Your task to perform on an android device: clear all cookies in the chrome app Image 0: 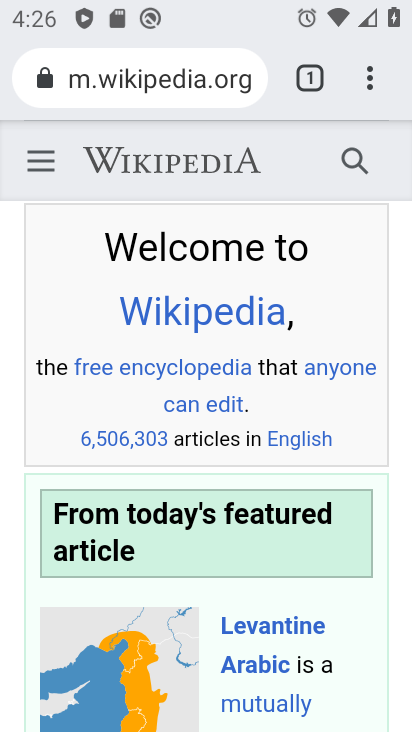
Step 0: press home button
Your task to perform on an android device: clear all cookies in the chrome app Image 1: 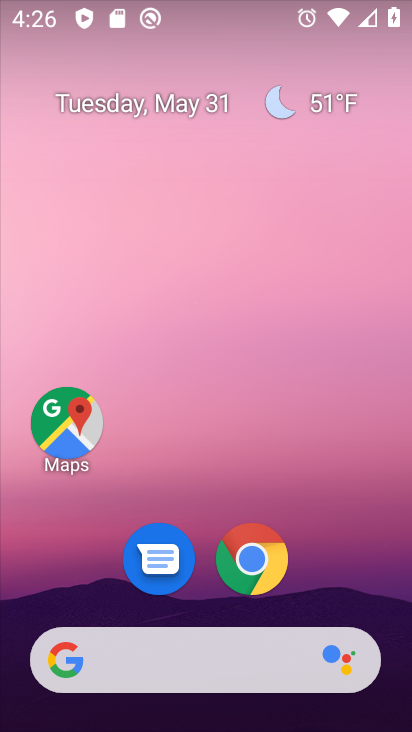
Step 1: click (262, 562)
Your task to perform on an android device: clear all cookies in the chrome app Image 2: 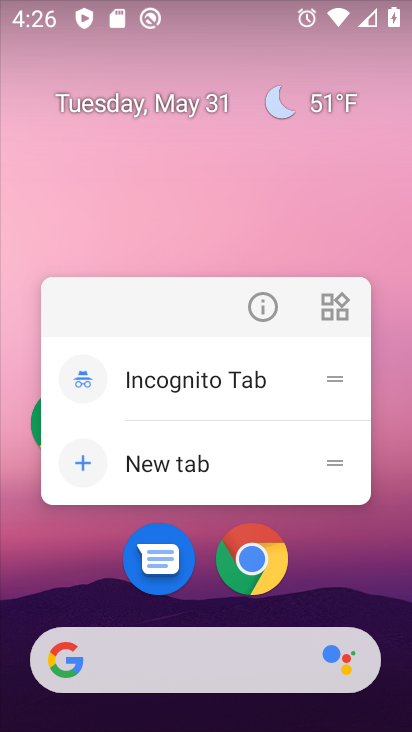
Step 2: click (252, 571)
Your task to perform on an android device: clear all cookies in the chrome app Image 3: 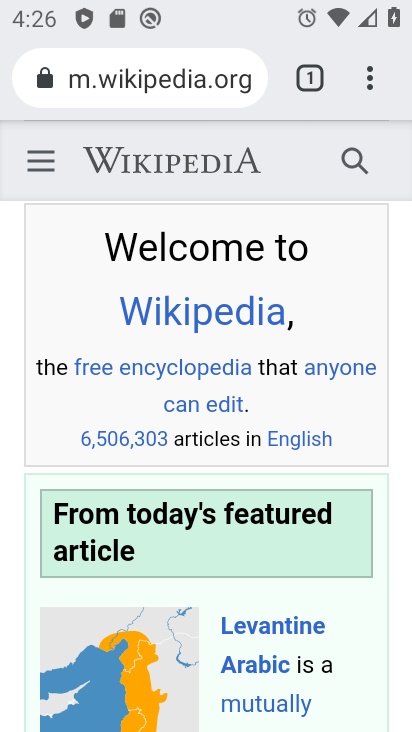
Step 3: click (366, 79)
Your task to perform on an android device: clear all cookies in the chrome app Image 4: 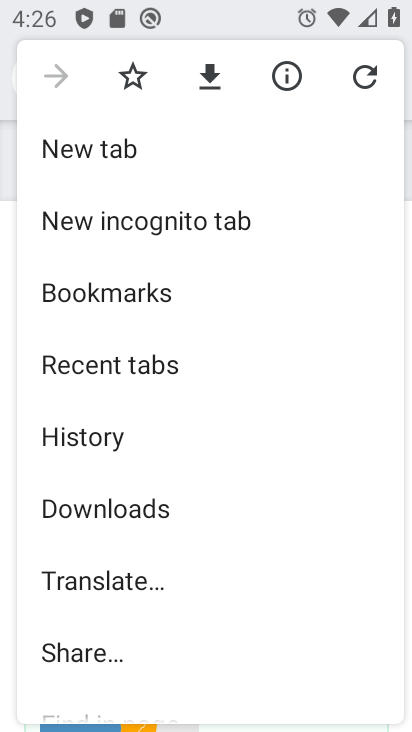
Step 4: click (85, 446)
Your task to perform on an android device: clear all cookies in the chrome app Image 5: 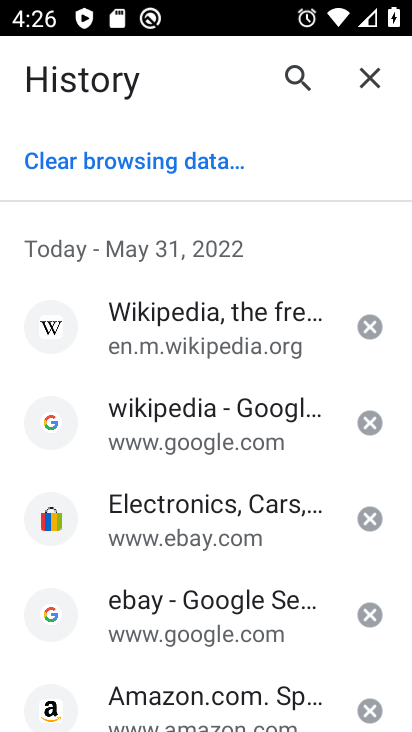
Step 5: click (160, 153)
Your task to perform on an android device: clear all cookies in the chrome app Image 6: 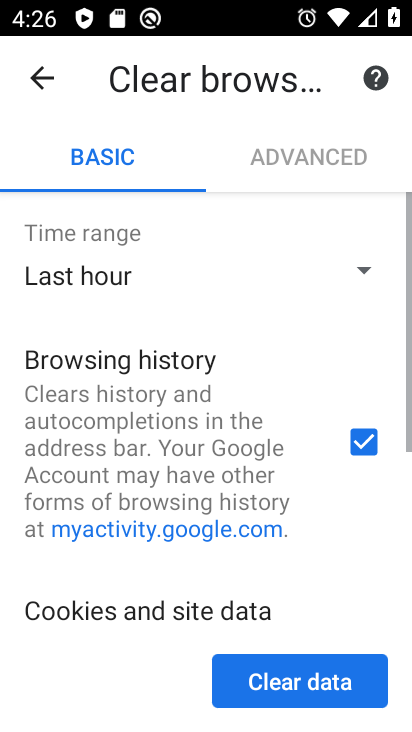
Step 6: drag from (324, 479) to (292, 182)
Your task to perform on an android device: clear all cookies in the chrome app Image 7: 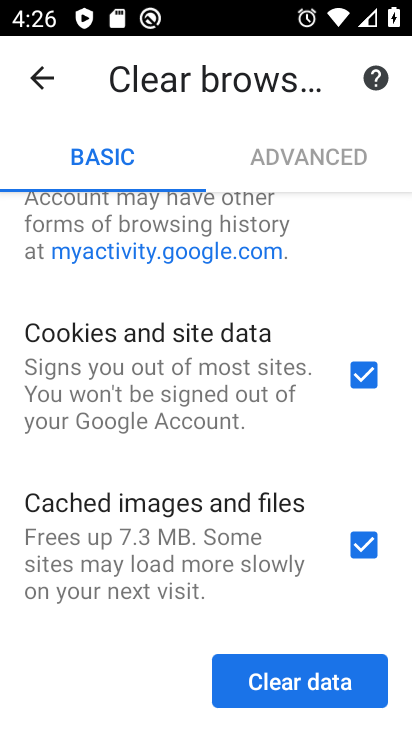
Step 7: click (247, 567)
Your task to perform on an android device: clear all cookies in the chrome app Image 8: 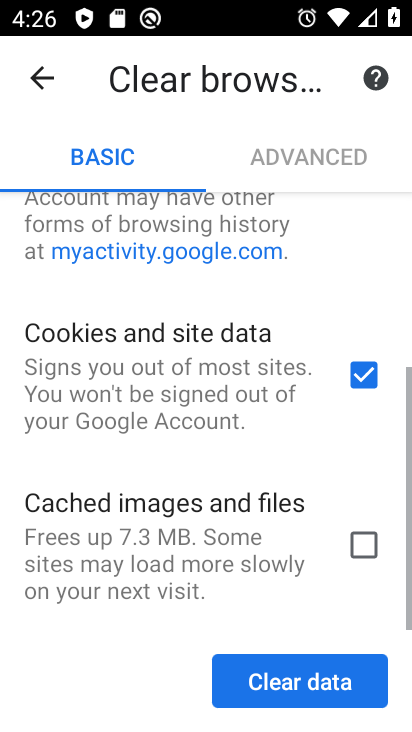
Step 8: drag from (260, 332) to (255, 619)
Your task to perform on an android device: clear all cookies in the chrome app Image 9: 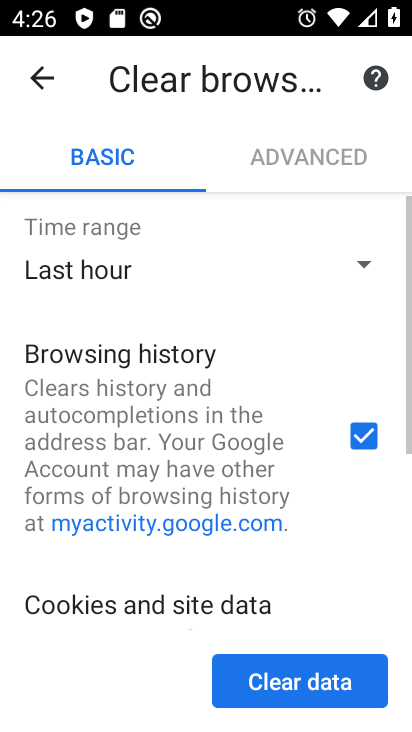
Step 9: click (290, 412)
Your task to perform on an android device: clear all cookies in the chrome app Image 10: 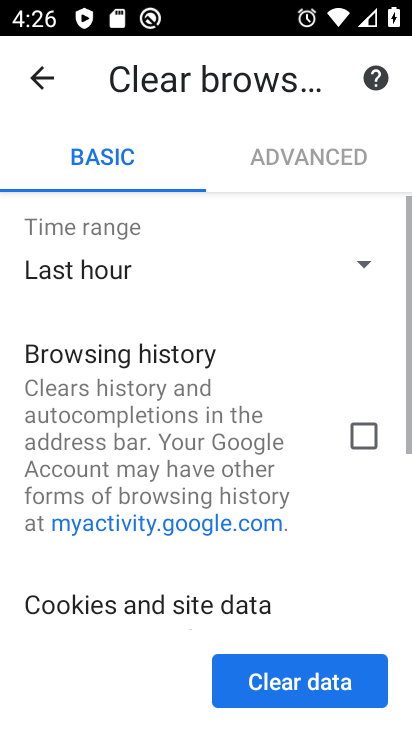
Step 10: click (310, 692)
Your task to perform on an android device: clear all cookies in the chrome app Image 11: 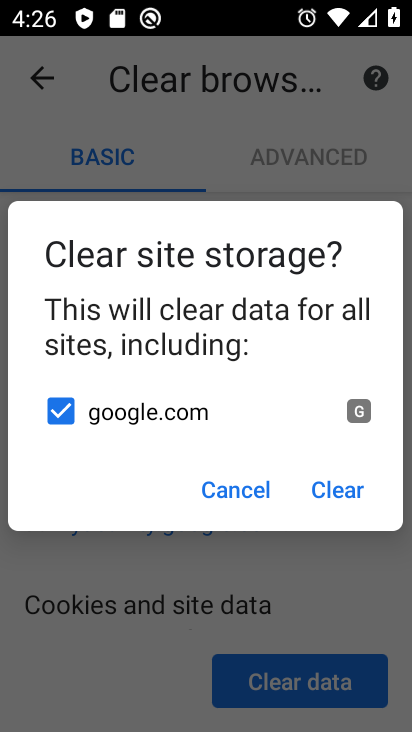
Step 11: click (336, 483)
Your task to perform on an android device: clear all cookies in the chrome app Image 12: 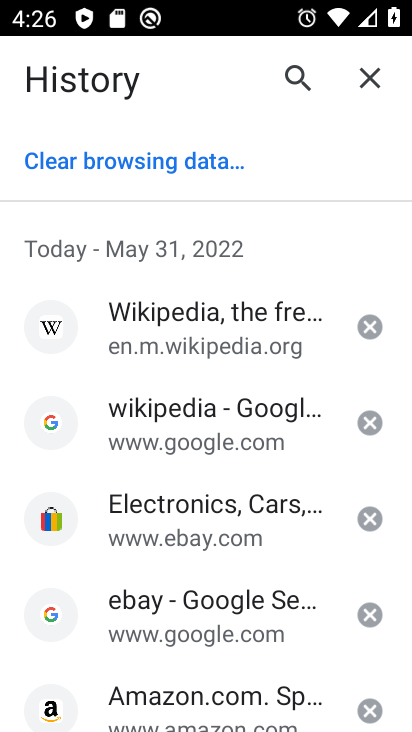
Step 12: task complete